Your task to perform on an android device: toggle wifi Image 0: 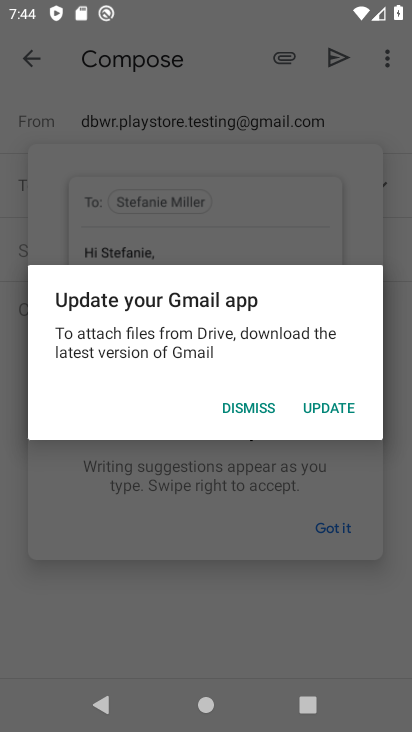
Step 0: press back button
Your task to perform on an android device: toggle wifi Image 1: 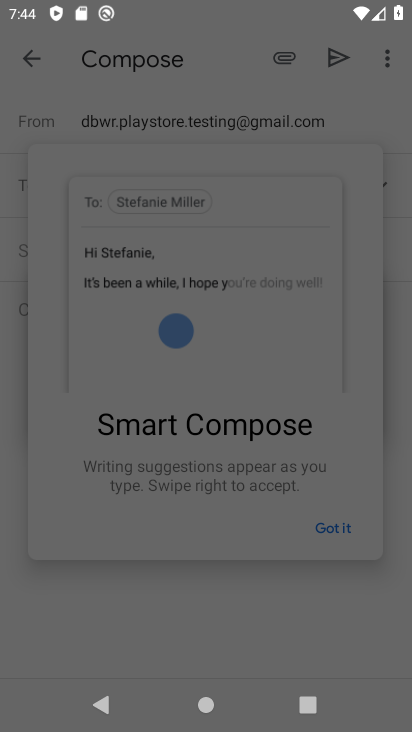
Step 1: press back button
Your task to perform on an android device: toggle wifi Image 2: 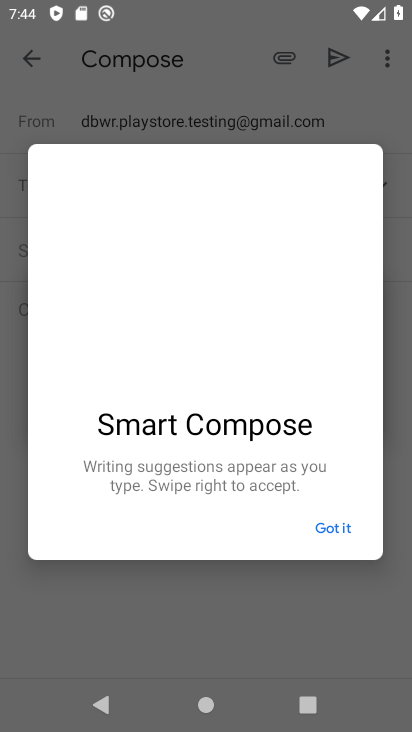
Step 2: press home button
Your task to perform on an android device: toggle wifi Image 3: 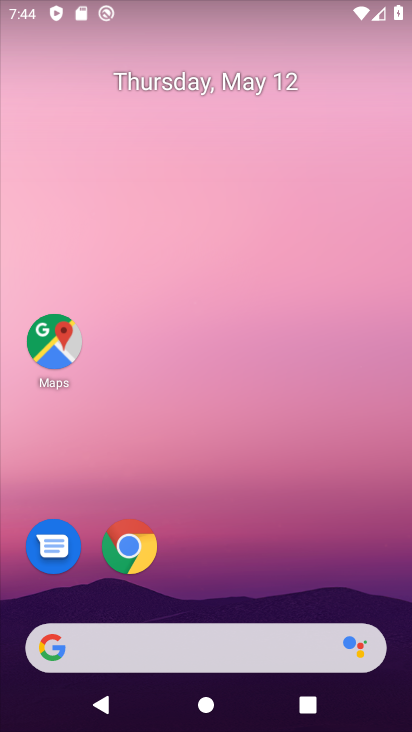
Step 3: drag from (83, 9) to (100, 588)
Your task to perform on an android device: toggle wifi Image 4: 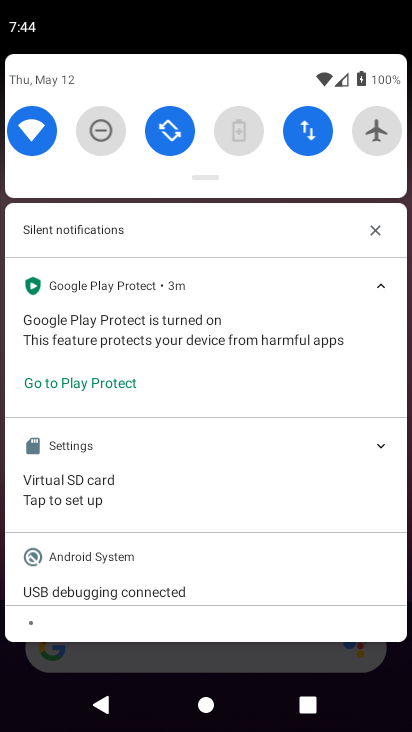
Step 4: click (35, 120)
Your task to perform on an android device: toggle wifi Image 5: 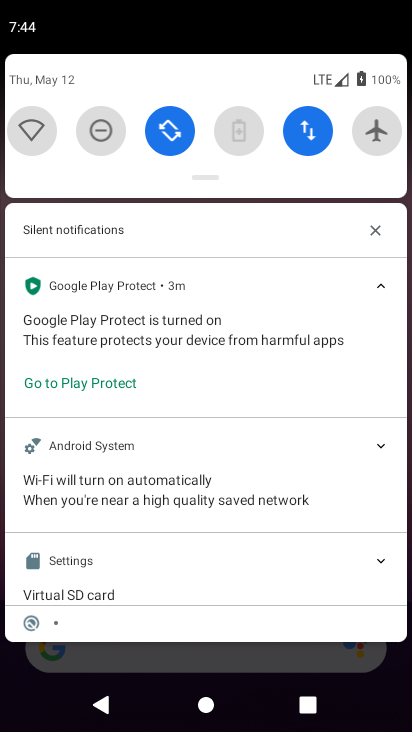
Step 5: task complete